Your task to perform on an android device: find which apps use the phone's location Image 0: 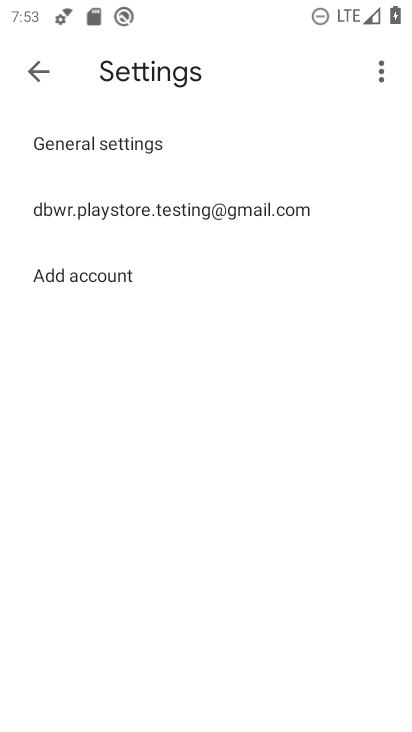
Step 0: press back button
Your task to perform on an android device: find which apps use the phone's location Image 1: 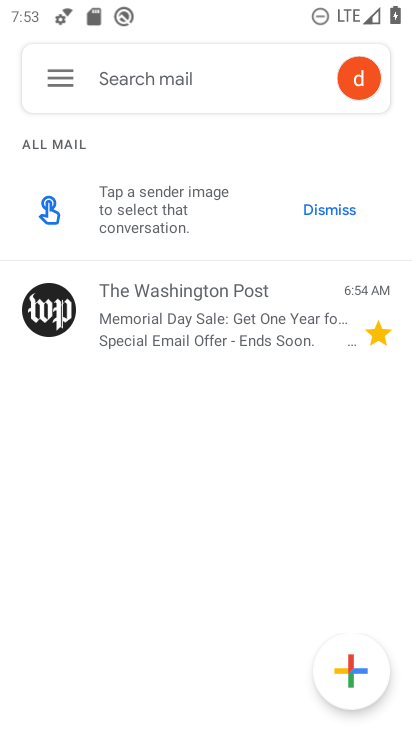
Step 1: press back button
Your task to perform on an android device: find which apps use the phone's location Image 2: 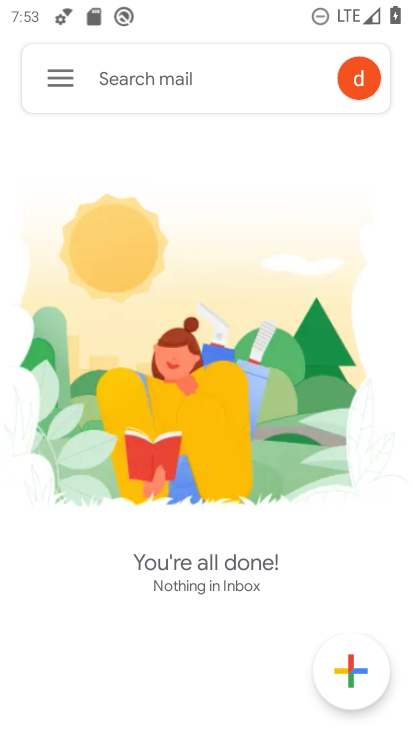
Step 2: press home button
Your task to perform on an android device: find which apps use the phone's location Image 3: 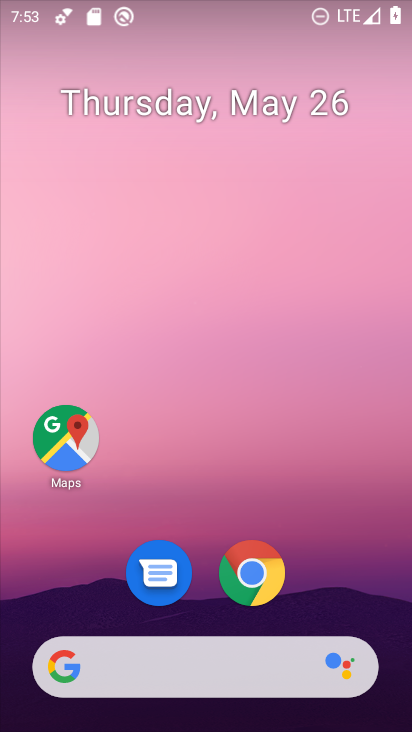
Step 3: drag from (277, 438) to (215, 49)
Your task to perform on an android device: find which apps use the phone's location Image 4: 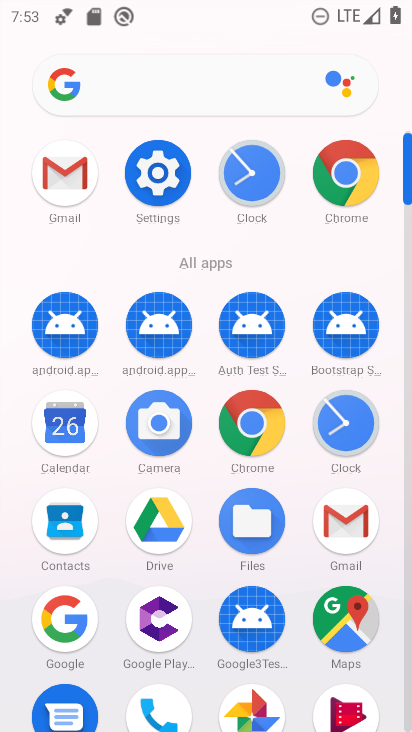
Step 4: drag from (7, 621) to (24, 301)
Your task to perform on an android device: find which apps use the phone's location Image 5: 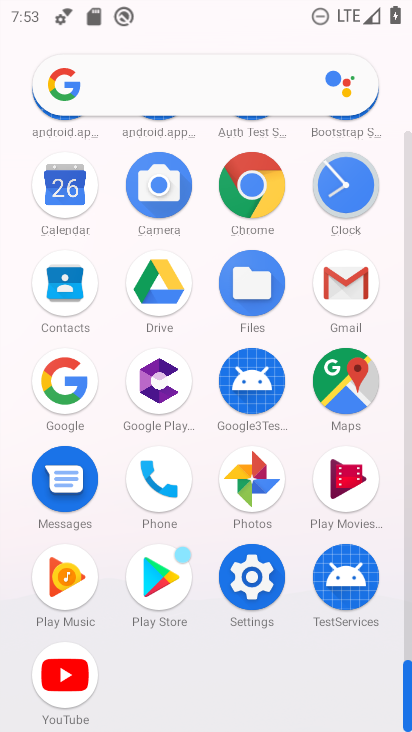
Step 5: drag from (6, 585) to (18, 302)
Your task to perform on an android device: find which apps use the phone's location Image 6: 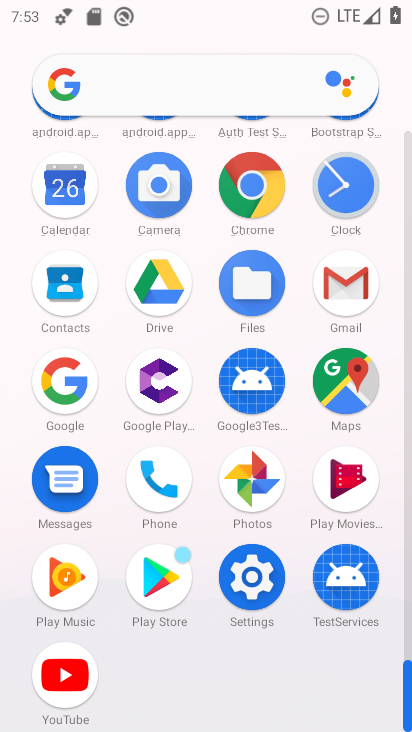
Step 6: click (253, 574)
Your task to perform on an android device: find which apps use the phone's location Image 7: 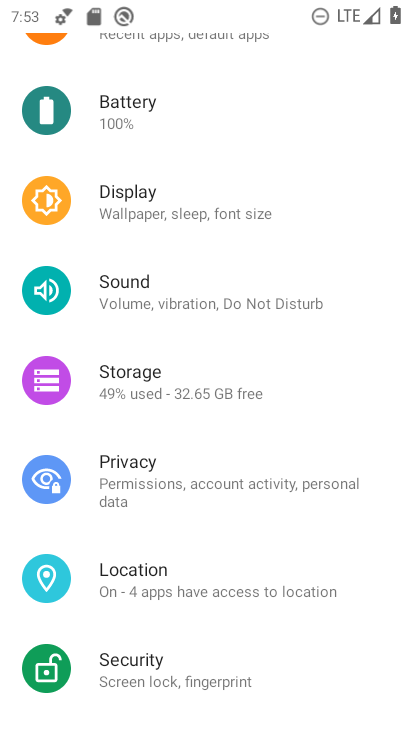
Step 7: click (180, 581)
Your task to perform on an android device: find which apps use the phone's location Image 8: 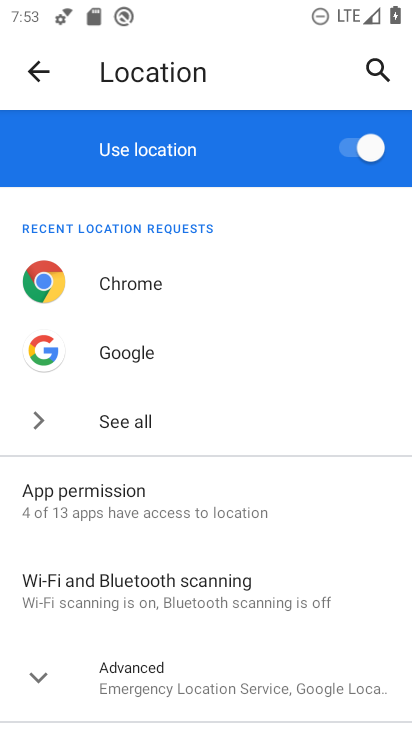
Step 8: click (36, 682)
Your task to perform on an android device: find which apps use the phone's location Image 9: 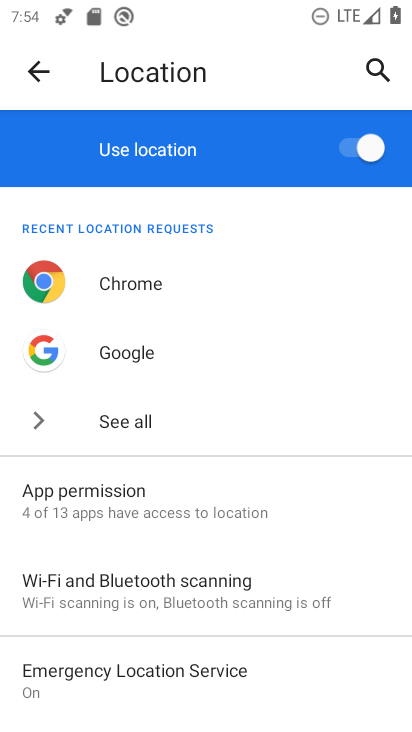
Step 9: drag from (231, 615) to (268, 324)
Your task to perform on an android device: find which apps use the phone's location Image 10: 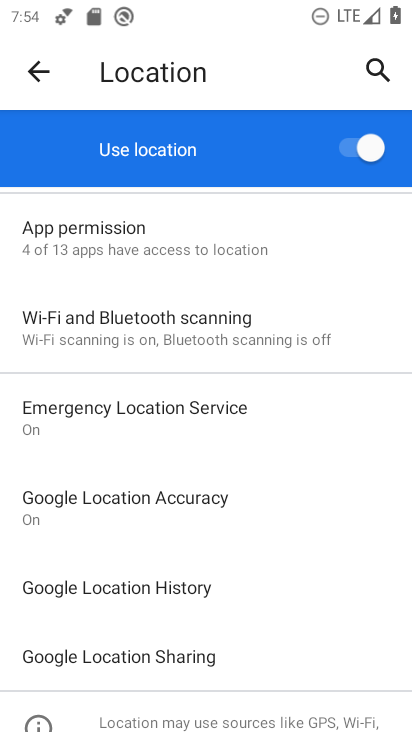
Step 10: click (257, 308)
Your task to perform on an android device: find which apps use the phone's location Image 11: 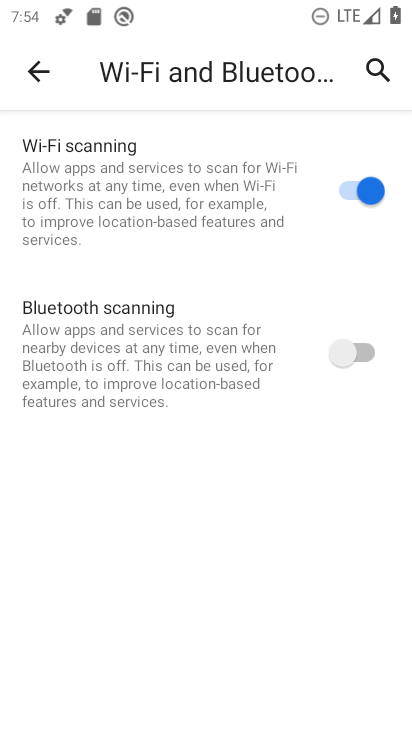
Step 11: click (37, 67)
Your task to perform on an android device: find which apps use the phone's location Image 12: 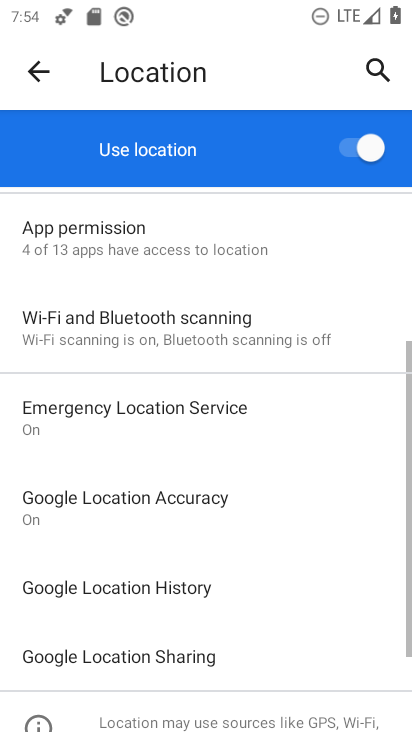
Step 12: click (157, 240)
Your task to perform on an android device: find which apps use the phone's location Image 13: 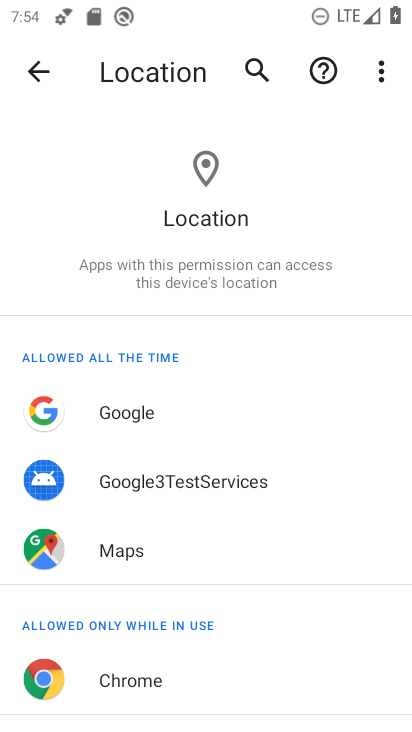
Step 13: task complete